Your task to perform on an android device: Open Reddit.com Image 0: 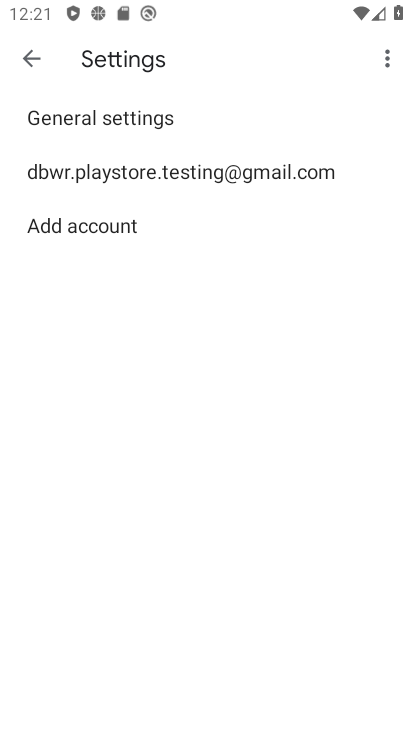
Step 0: press home button
Your task to perform on an android device: Open Reddit.com Image 1: 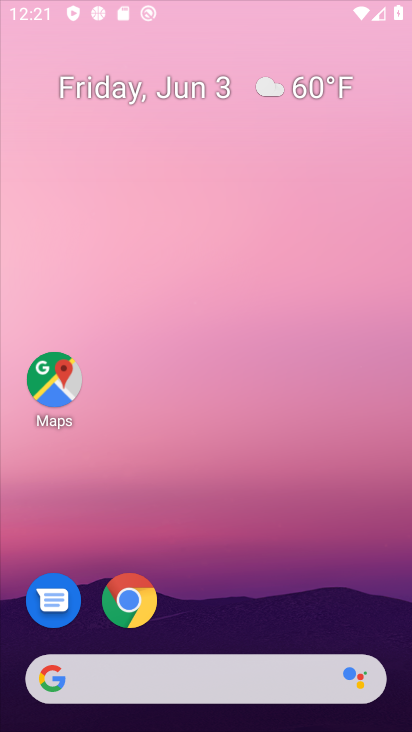
Step 1: press home button
Your task to perform on an android device: Open Reddit.com Image 2: 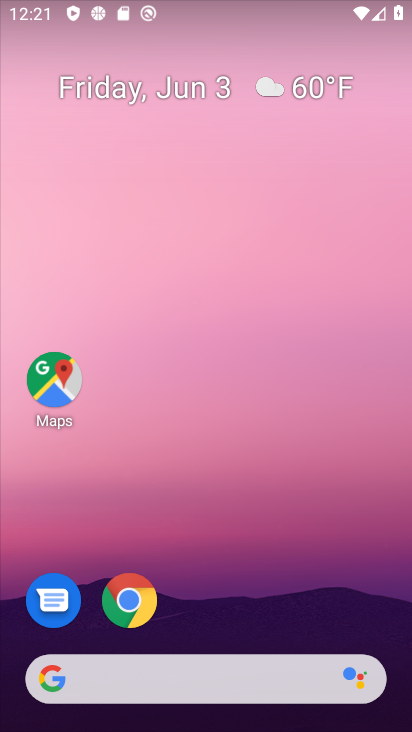
Step 2: click (136, 602)
Your task to perform on an android device: Open Reddit.com Image 3: 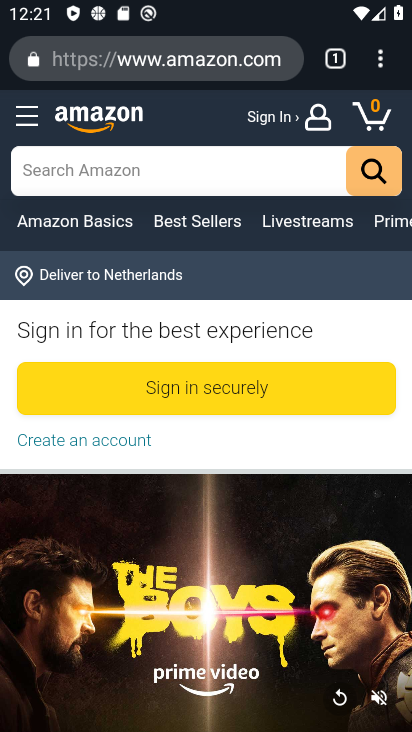
Step 3: click (221, 61)
Your task to perform on an android device: Open Reddit.com Image 4: 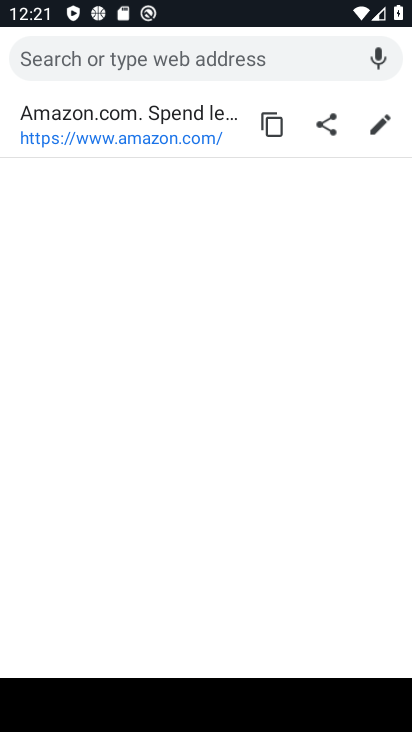
Step 4: type "reddit.com"
Your task to perform on an android device: Open Reddit.com Image 5: 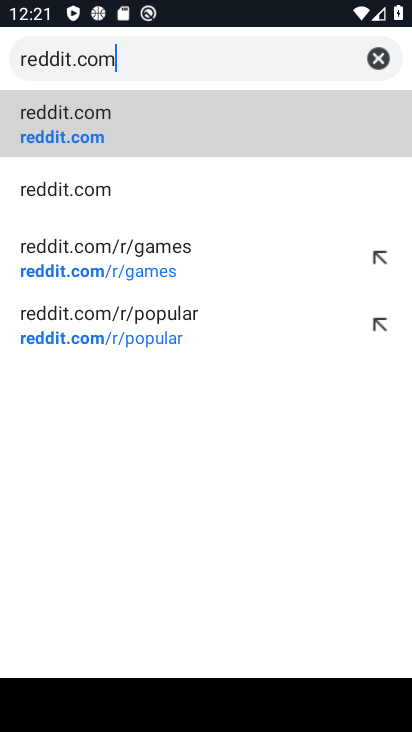
Step 5: click (79, 136)
Your task to perform on an android device: Open Reddit.com Image 6: 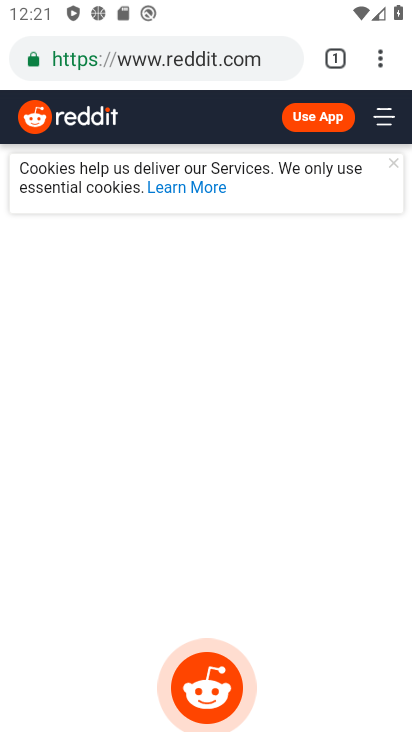
Step 6: task complete